Your task to perform on an android device: add a label to a message in the gmail app Image 0: 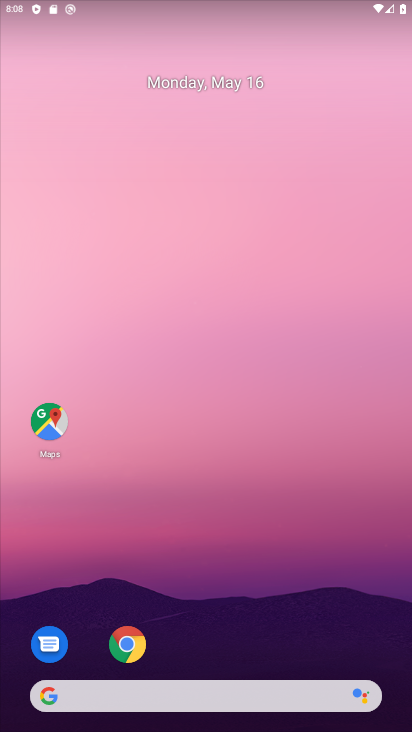
Step 0: drag from (201, 645) to (312, 73)
Your task to perform on an android device: add a label to a message in the gmail app Image 1: 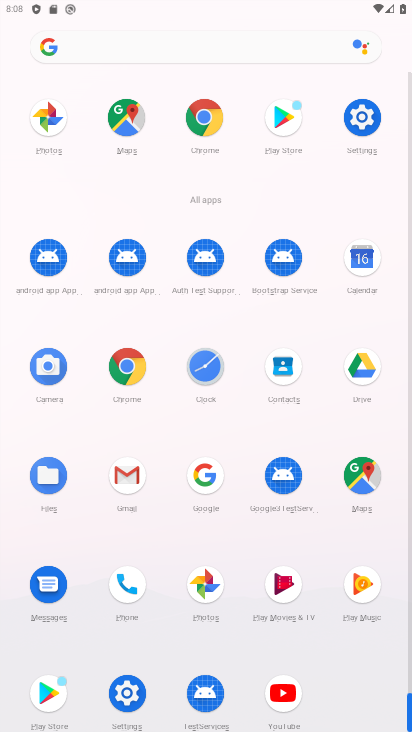
Step 1: click (120, 475)
Your task to perform on an android device: add a label to a message in the gmail app Image 2: 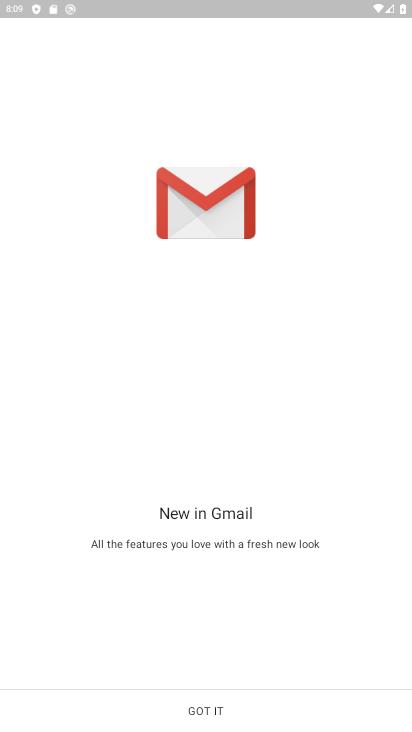
Step 2: click (249, 721)
Your task to perform on an android device: add a label to a message in the gmail app Image 3: 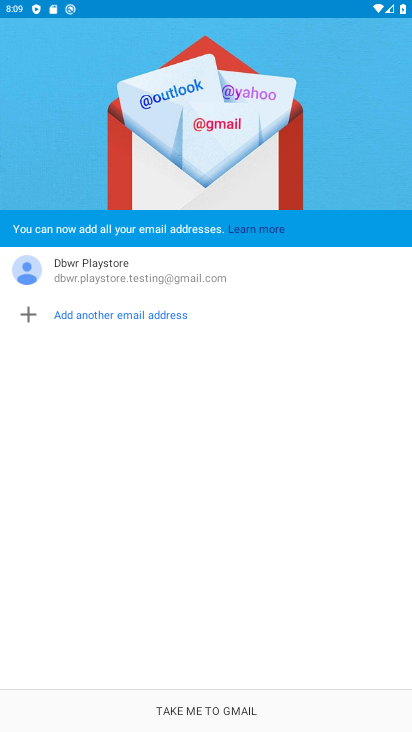
Step 3: click (219, 708)
Your task to perform on an android device: add a label to a message in the gmail app Image 4: 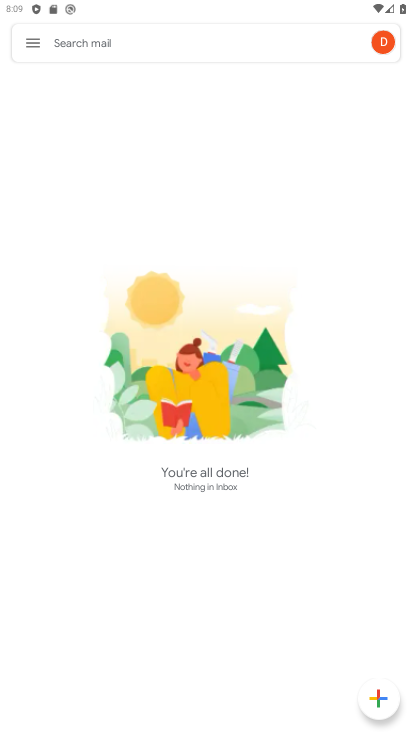
Step 4: click (32, 47)
Your task to perform on an android device: add a label to a message in the gmail app Image 5: 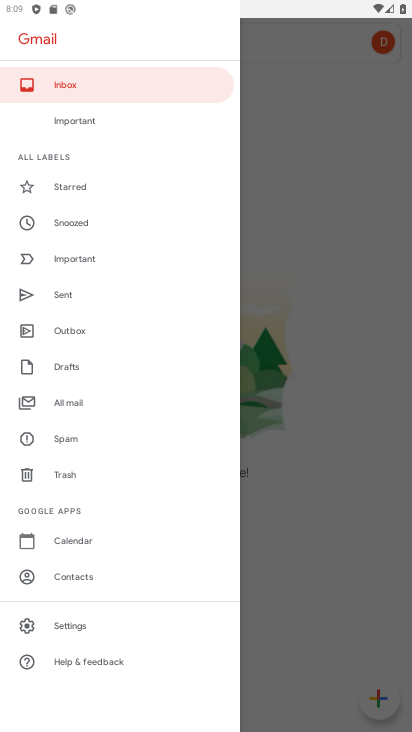
Step 5: task complete